Your task to perform on an android device: Search for "usb-c to usb-b" on costco.com, select the first entry, add it to the cart, then select checkout. Image 0: 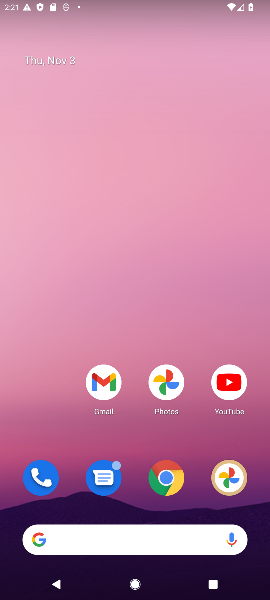
Step 0: click (163, 487)
Your task to perform on an android device: Search for "usb-c to usb-b" on costco.com, select the first entry, add it to the cart, then select checkout. Image 1: 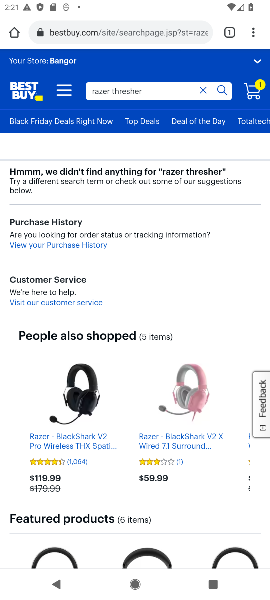
Step 1: click (109, 38)
Your task to perform on an android device: Search for "usb-c to usb-b" on costco.com, select the first entry, add it to the cart, then select checkout. Image 2: 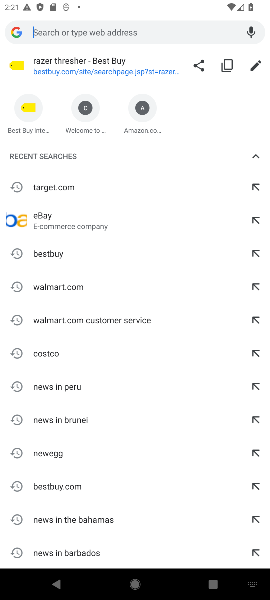
Step 2: type "costco.com"
Your task to perform on an android device: Search for "usb-c to usb-b" on costco.com, select the first entry, add it to the cart, then select checkout. Image 3: 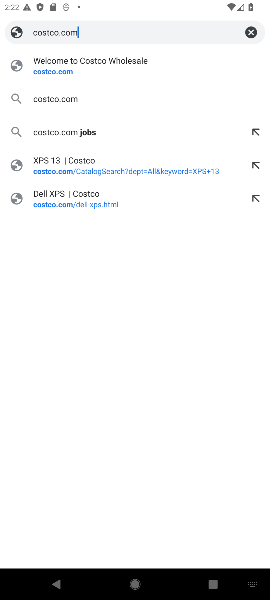
Step 3: click (53, 71)
Your task to perform on an android device: Search for "usb-c to usb-b" on costco.com, select the first entry, add it to the cart, then select checkout. Image 4: 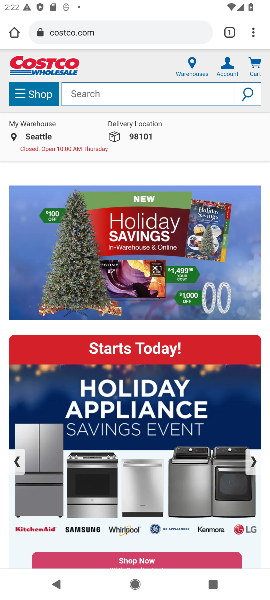
Step 4: click (121, 89)
Your task to perform on an android device: Search for "usb-c to usb-b" on costco.com, select the first entry, add it to the cart, then select checkout. Image 5: 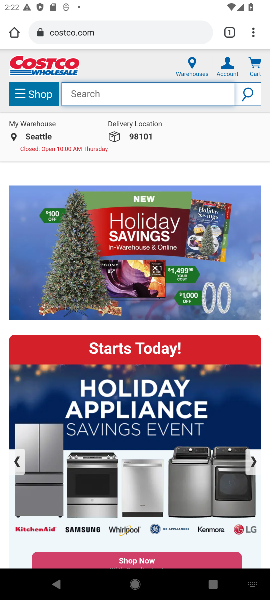
Step 5: type "usb-c to usb-b"
Your task to perform on an android device: Search for "usb-c to usb-b" on costco.com, select the first entry, add it to the cart, then select checkout. Image 6: 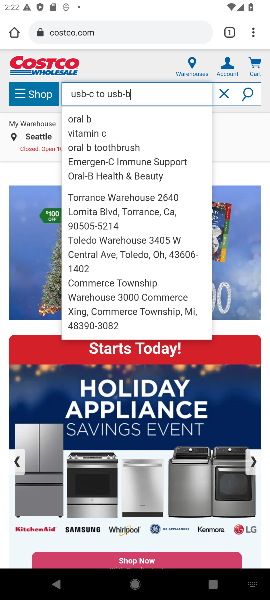
Step 6: click (251, 93)
Your task to perform on an android device: Search for "usb-c to usb-b" on costco.com, select the first entry, add it to the cart, then select checkout. Image 7: 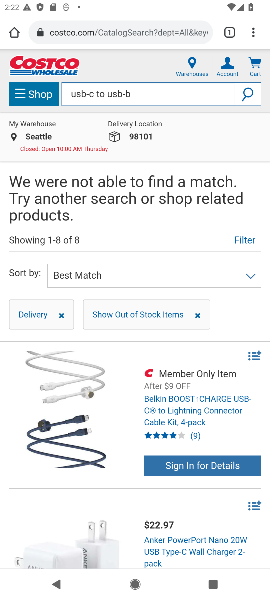
Step 7: task complete